Your task to perform on an android device: Open Chrome and go to the settings page Image 0: 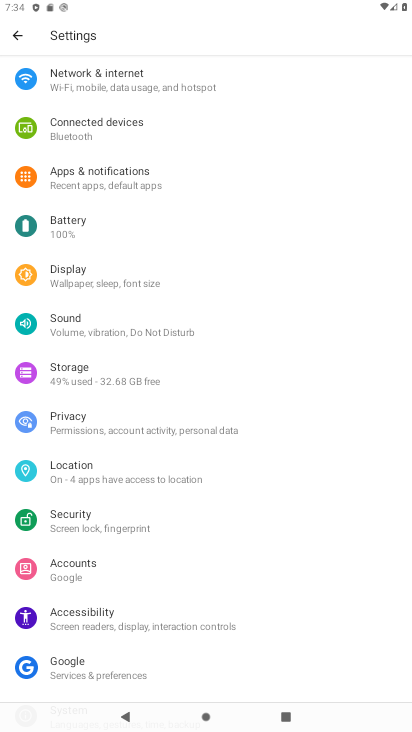
Step 0: press home button
Your task to perform on an android device: Open Chrome and go to the settings page Image 1: 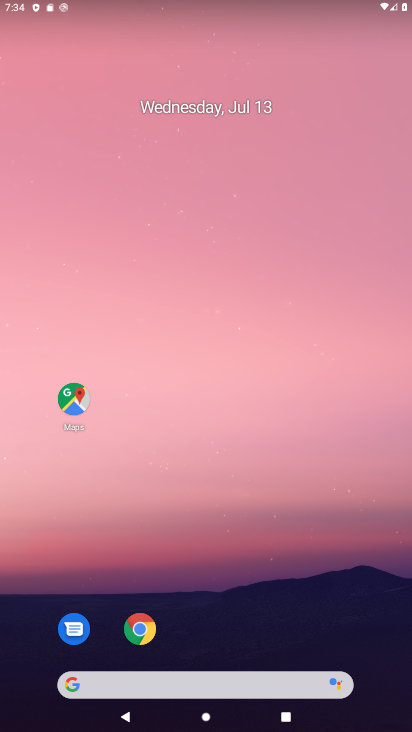
Step 1: drag from (205, 549) to (179, 98)
Your task to perform on an android device: Open Chrome and go to the settings page Image 2: 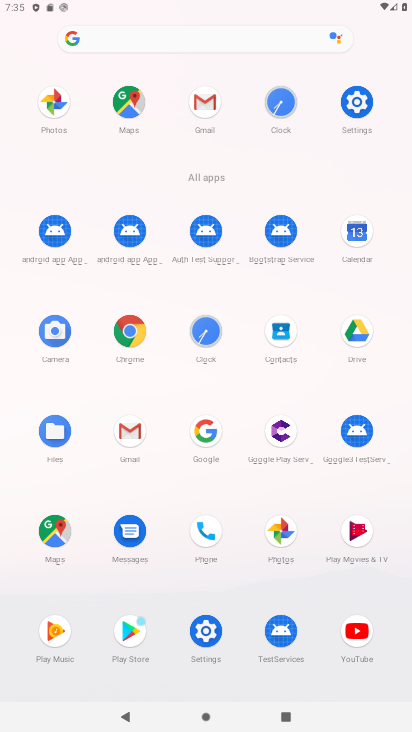
Step 2: click (138, 354)
Your task to perform on an android device: Open Chrome and go to the settings page Image 3: 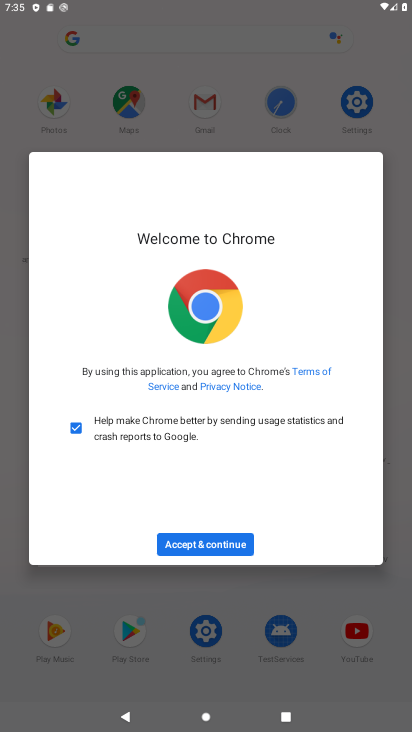
Step 3: click (213, 547)
Your task to perform on an android device: Open Chrome and go to the settings page Image 4: 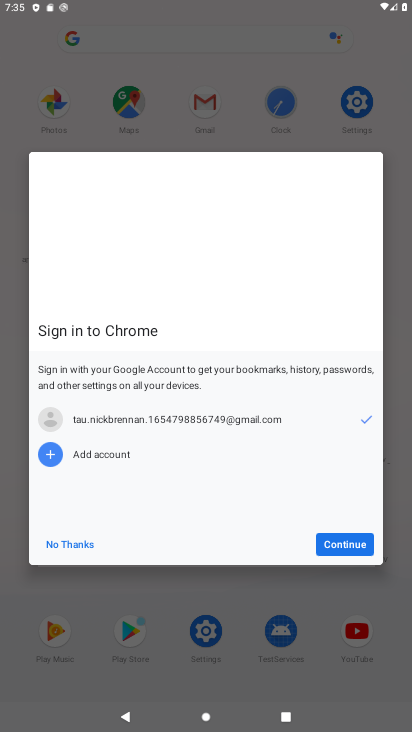
Step 4: click (67, 536)
Your task to perform on an android device: Open Chrome and go to the settings page Image 5: 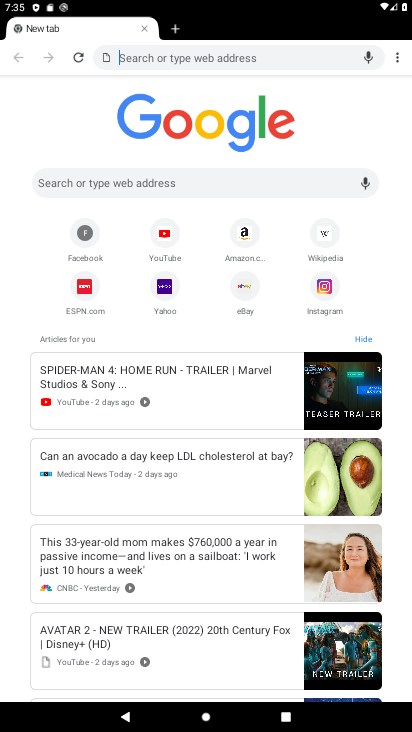
Step 5: task complete